Your task to perform on an android device: empty trash in the gmail app Image 0: 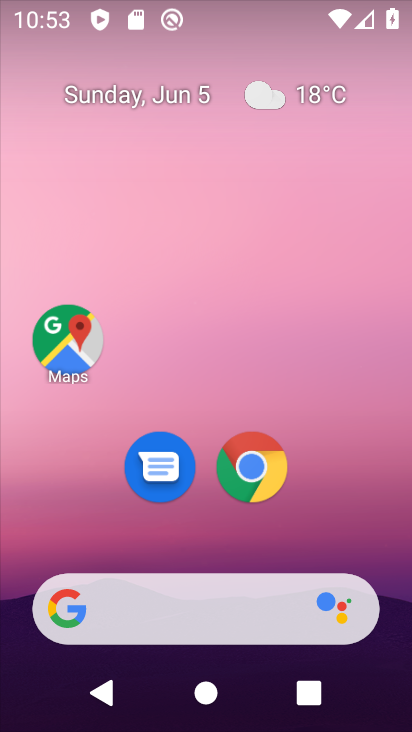
Step 0: drag from (213, 559) to (124, 48)
Your task to perform on an android device: empty trash in the gmail app Image 1: 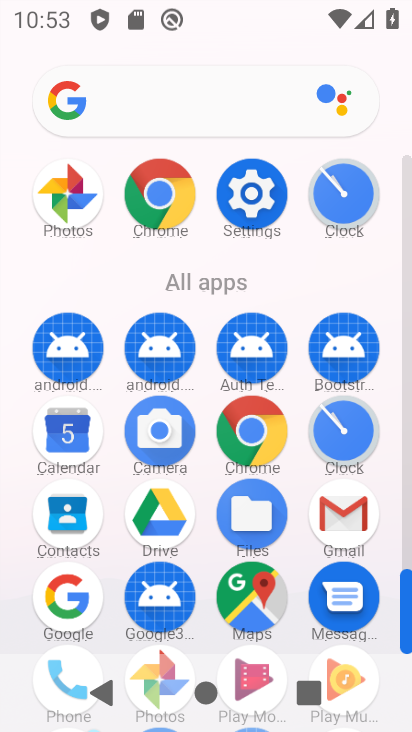
Step 1: click (335, 500)
Your task to perform on an android device: empty trash in the gmail app Image 2: 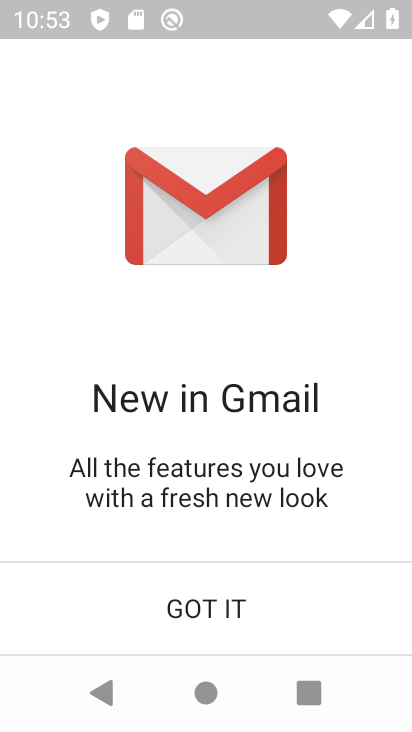
Step 2: click (226, 602)
Your task to perform on an android device: empty trash in the gmail app Image 3: 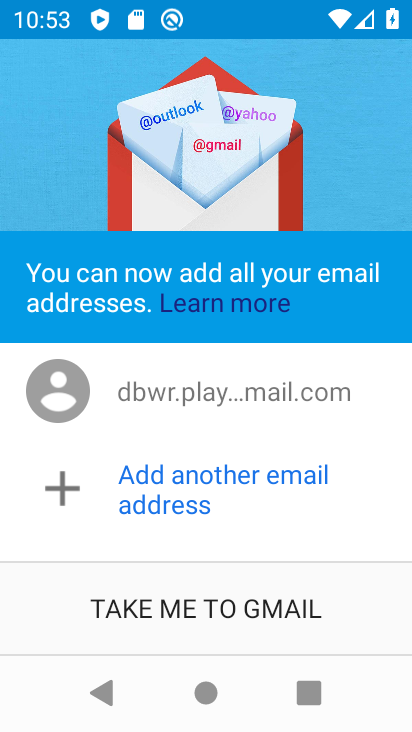
Step 3: click (226, 602)
Your task to perform on an android device: empty trash in the gmail app Image 4: 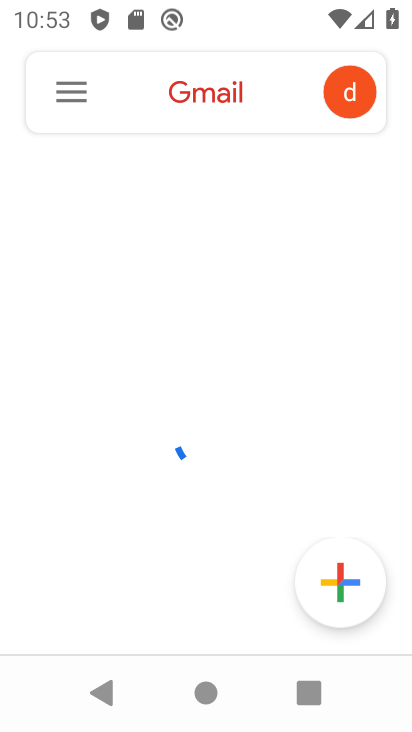
Step 4: click (68, 97)
Your task to perform on an android device: empty trash in the gmail app Image 5: 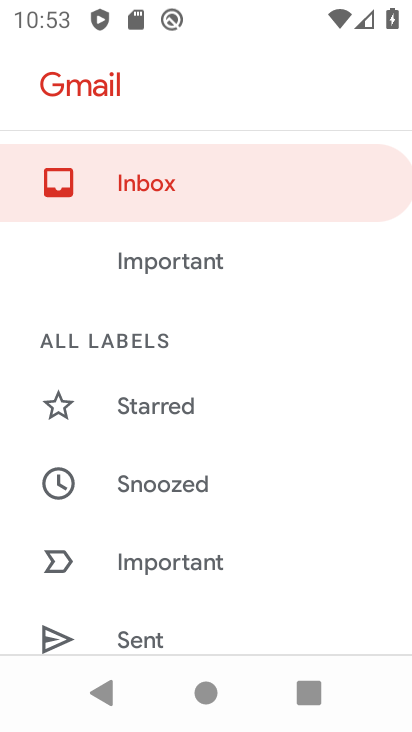
Step 5: drag from (205, 536) to (216, 38)
Your task to perform on an android device: empty trash in the gmail app Image 6: 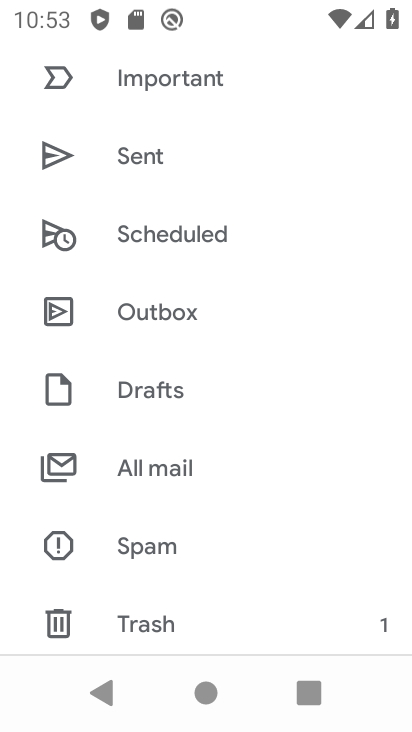
Step 6: click (83, 627)
Your task to perform on an android device: empty trash in the gmail app Image 7: 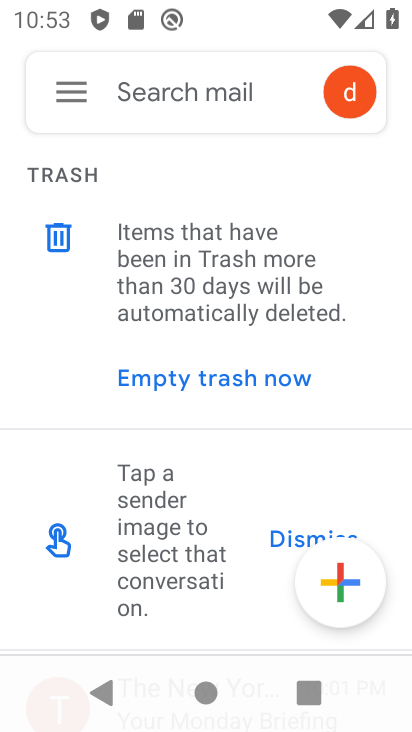
Step 7: click (269, 390)
Your task to perform on an android device: empty trash in the gmail app Image 8: 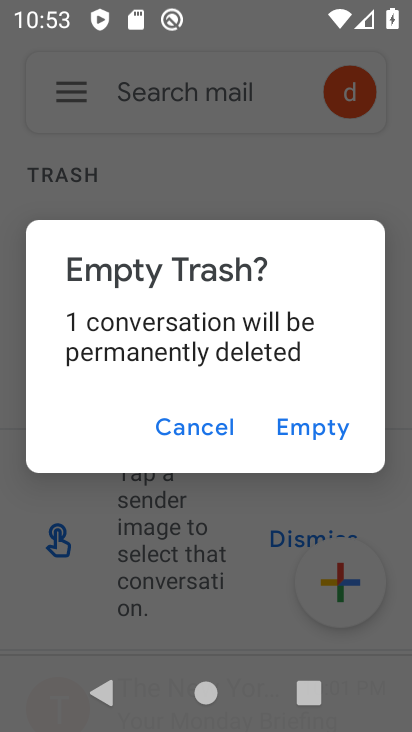
Step 8: click (307, 423)
Your task to perform on an android device: empty trash in the gmail app Image 9: 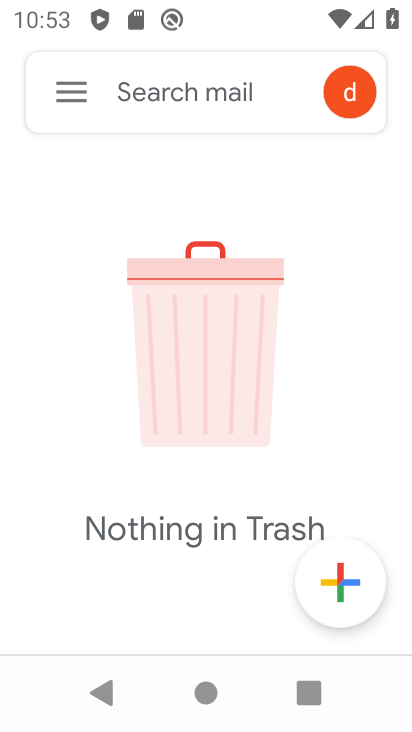
Step 9: task complete